Your task to perform on an android device: Open Google Maps Image 0: 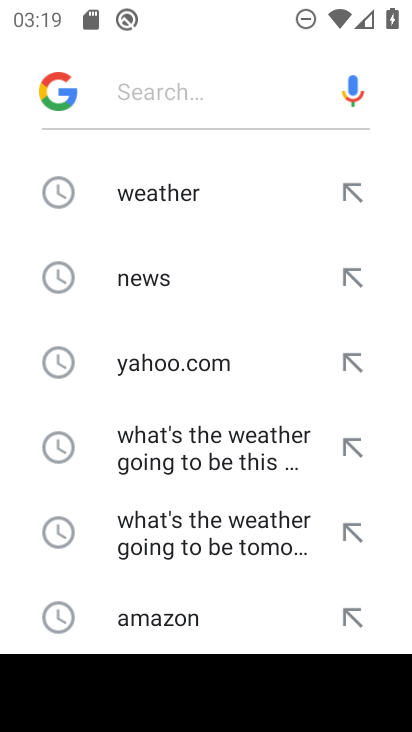
Step 0: press home button
Your task to perform on an android device: Open Google Maps Image 1: 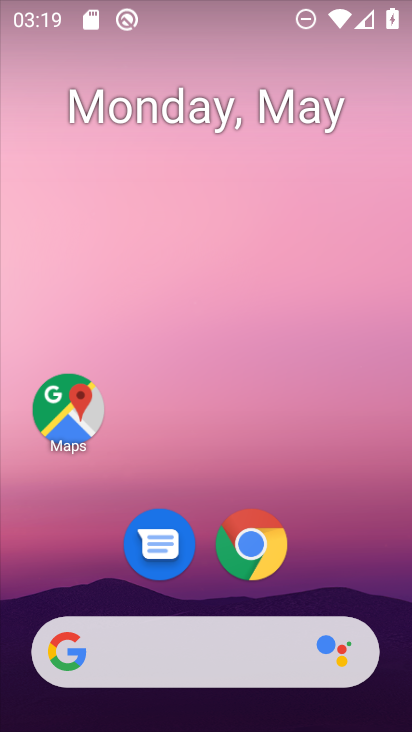
Step 1: drag from (370, 564) to (321, 118)
Your task to perform on an android device: Open Google Maps Image 2: 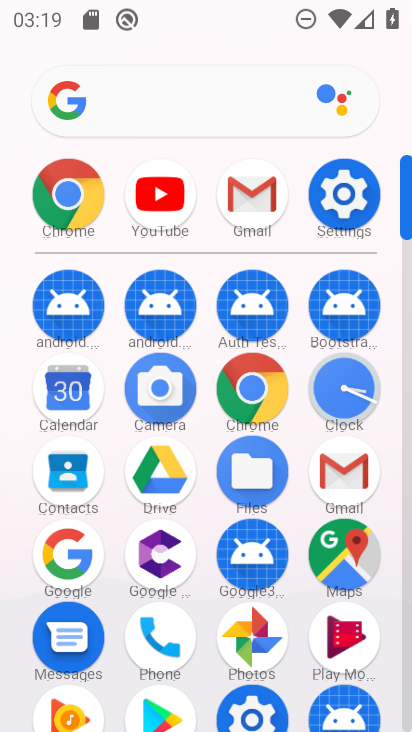
Step 2: click (359, 558)
Your task to perform on an android device: Open Google Maps Image 3: 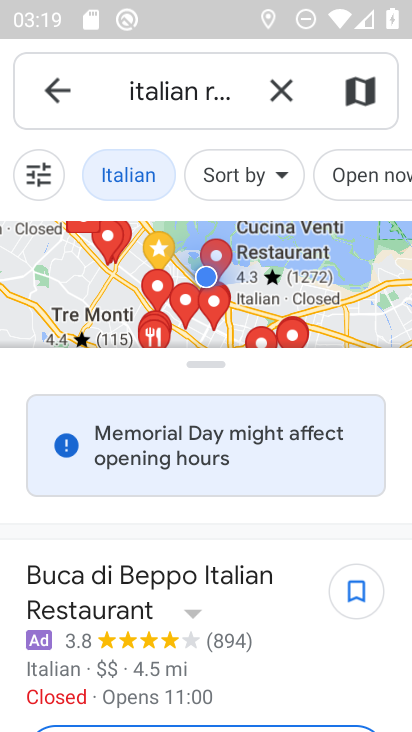
Step 3: task complete